Your task to perform on an android device: check google app version Image 0: 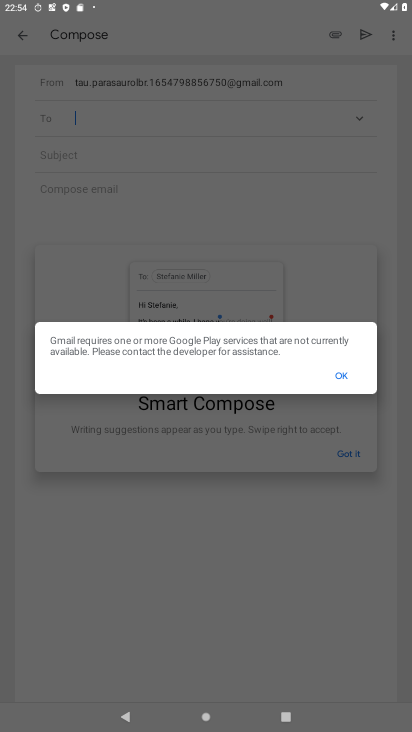
Step 0: press home button
Your task to perform on an android device: check google app version Image 1: 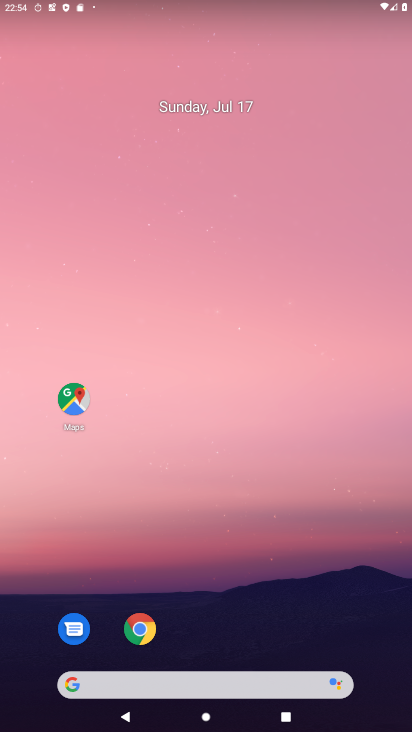
Step 1: drag from (230, 701) to (235, 66)
Your task to perform on an android device: check google app version Image 2: 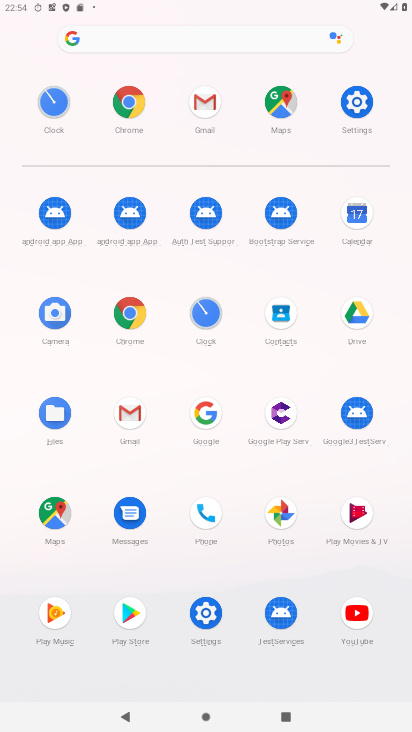
Step 2: click (203, 418)
Your task to perform on an android device: check google app version Image 3: 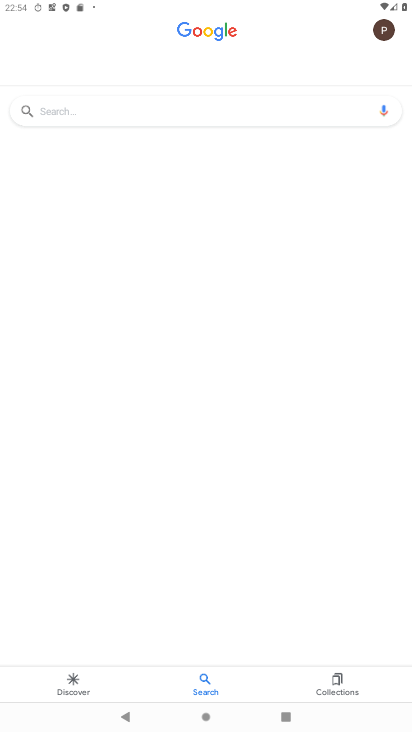
Step 3: click (385, 33)
Your task to perform on an android device: check google app version Image 4: 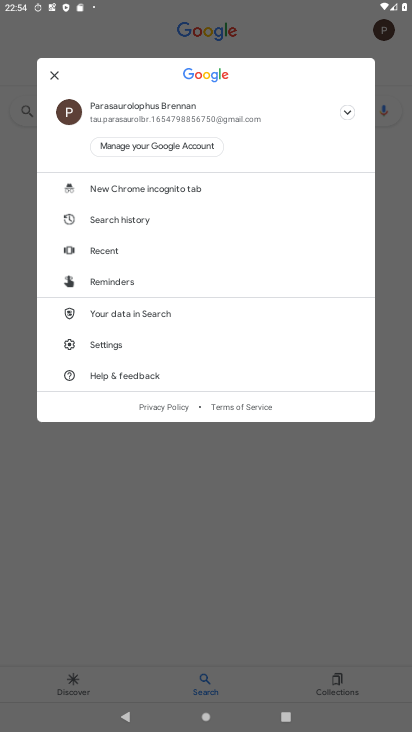
Step 4: click (104, 342)
Your task to perform on an android device: check google app version Image 5: 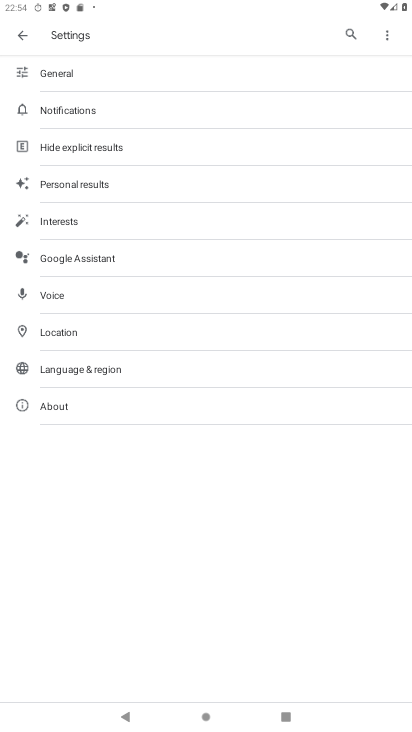
Step 5: click (53, 410)
Your task to perform on an android device: check google app version Image 6: 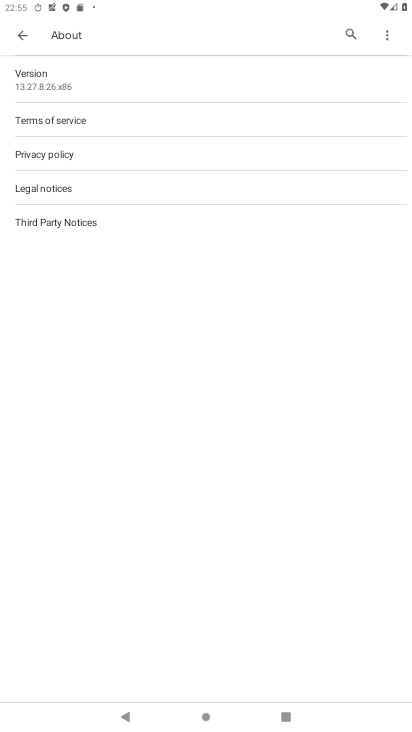
Step 6: task complete